Your task to perform on an android device: Search for the best rated mattress topper on Target. Image 0: 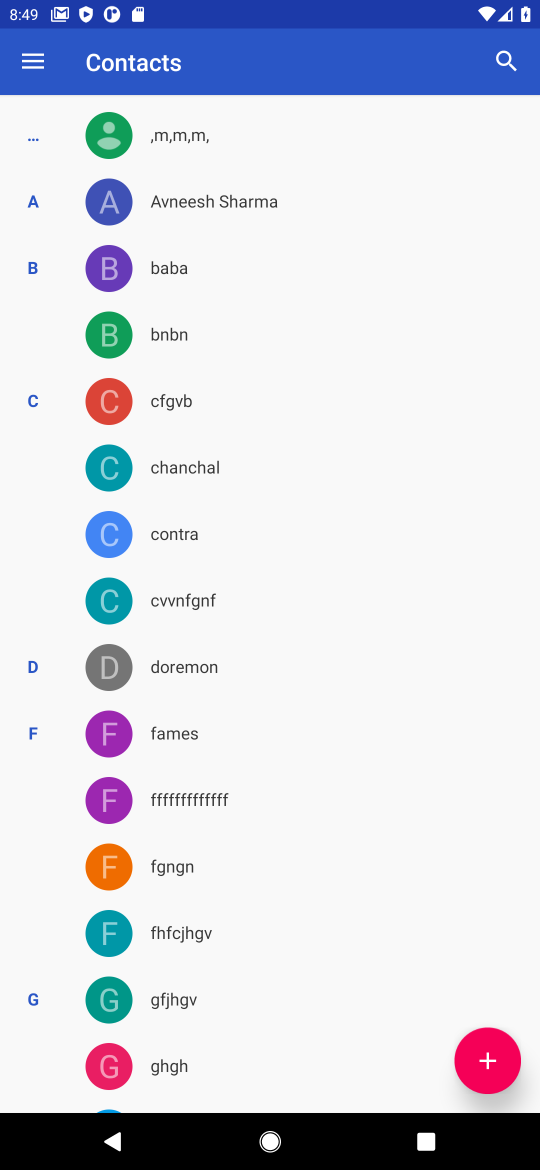
Step 0: press home button
Your task to perform on an android device: Search for the best rated mattress topper on Target. Image 1: 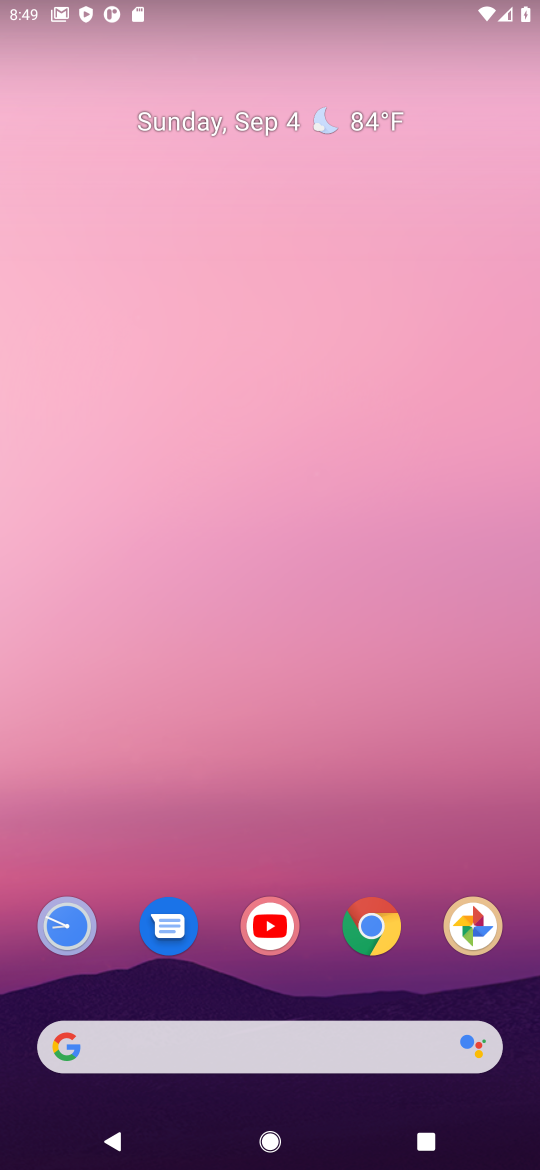
Step 1: click (237, 1030)
Your task to perform on an android device: Search for the best rated mattress topper on Target. Image 2: 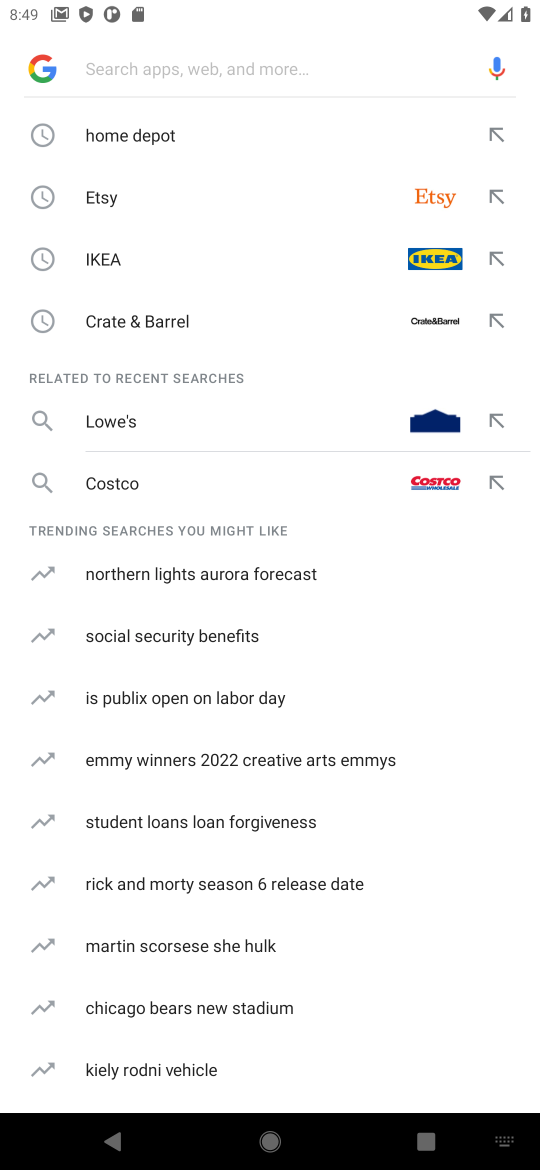
Step 2: type "target"
Your task to perform on an android device: Search for the best rated mattress topper on Target. Image 3: 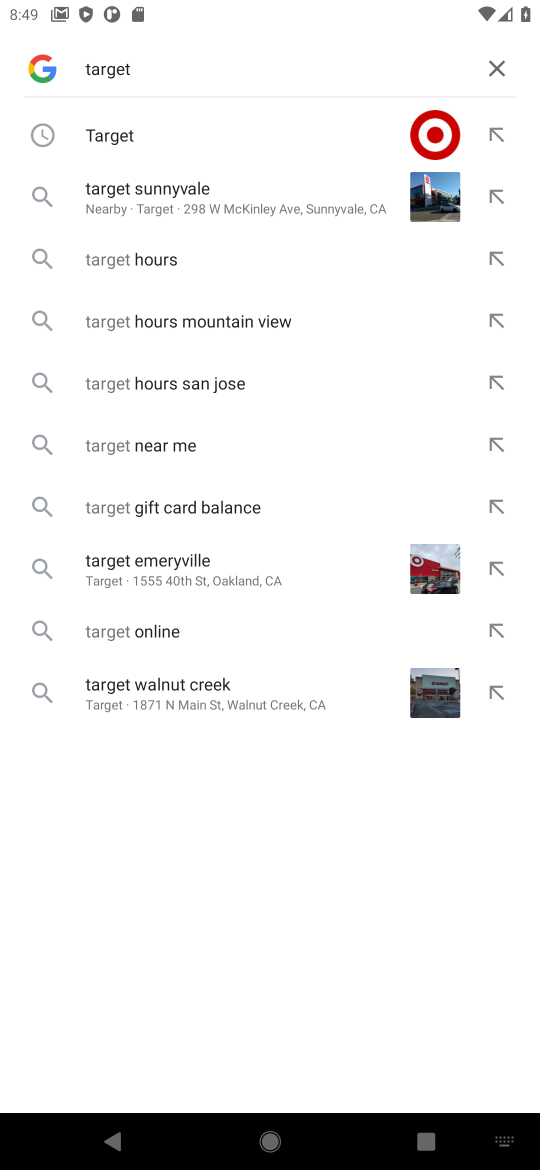
Step 3: click (130, 138)
Your task to perform on an android device: Search for the best rated mattress topper on Target. Image 4: 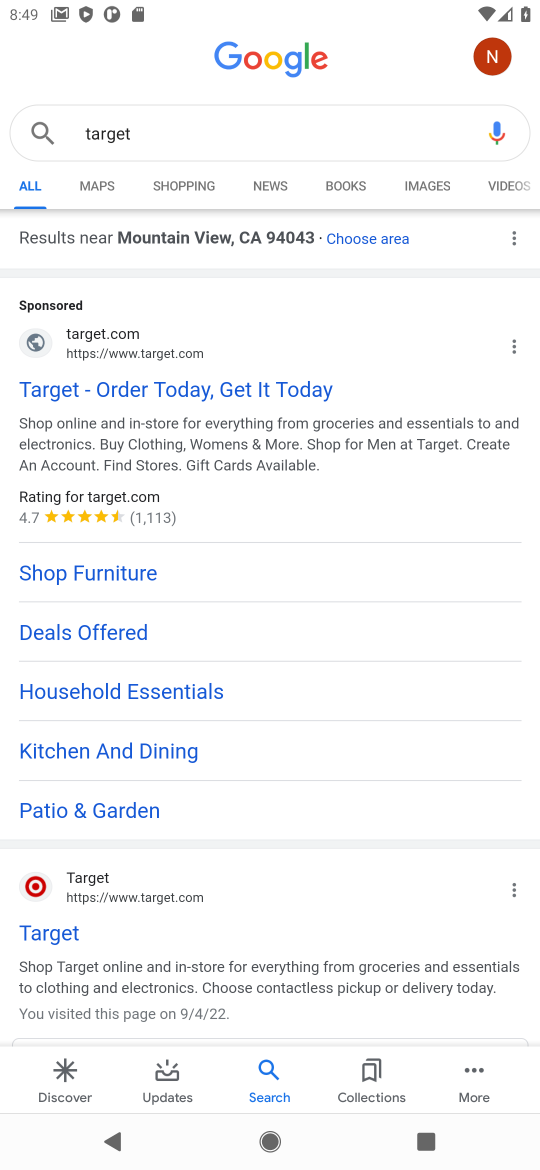
Step 4: click (51, 921)
Your task to perform on an android device: Search for the best rated mattress topper on Target. Image 5: 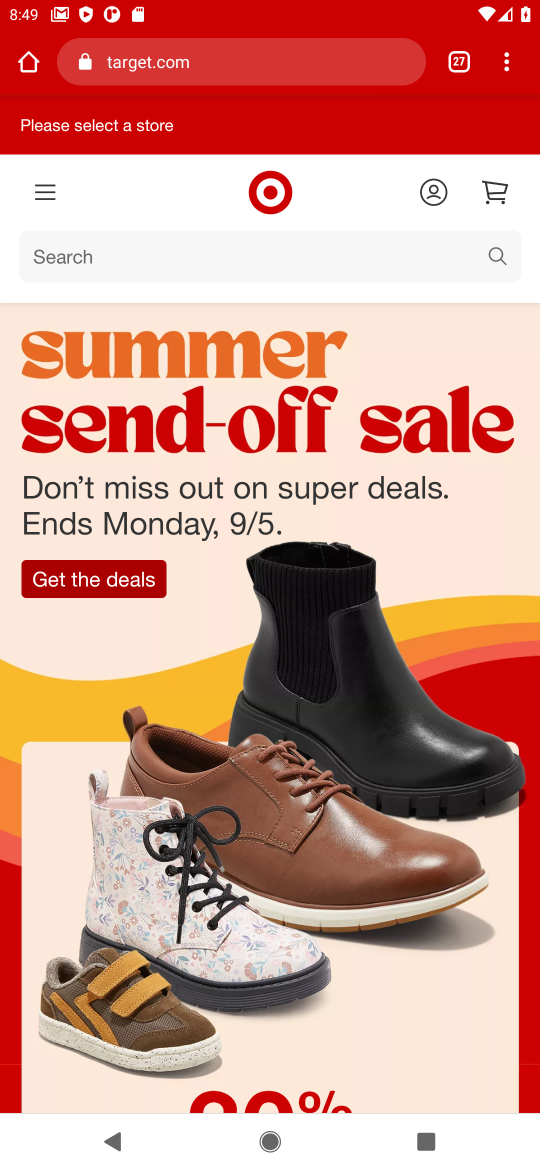
Step 5: click (217, 234)
Your task to perform on an android device: Search for the best rated mattress topper on Target. Image 6: 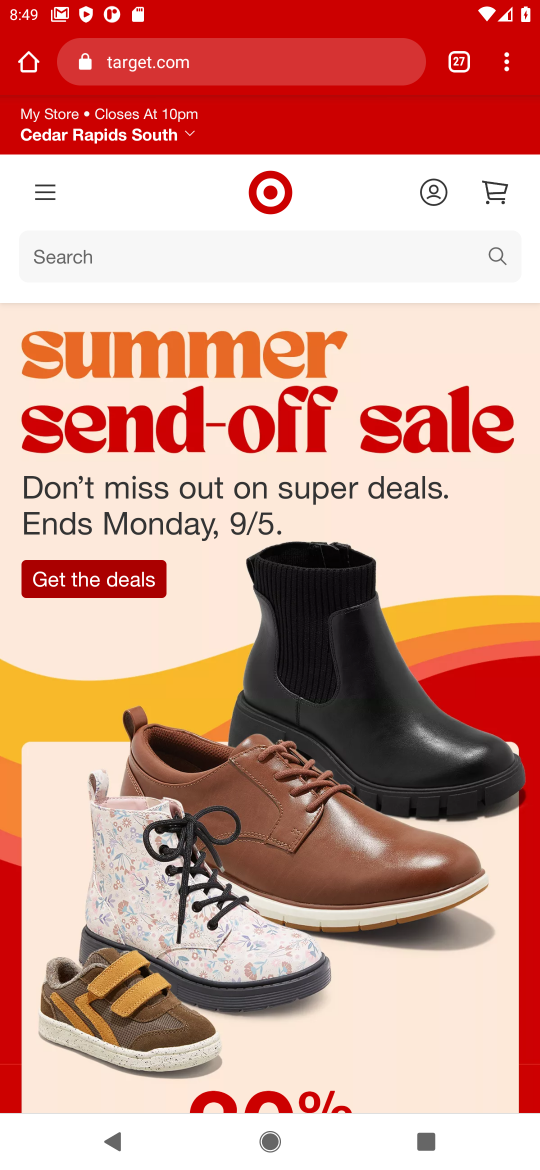
Step 6: click (72, 254)
Your task to perform on an android device: Search for the best rated mattress topper on Target. Image 7: 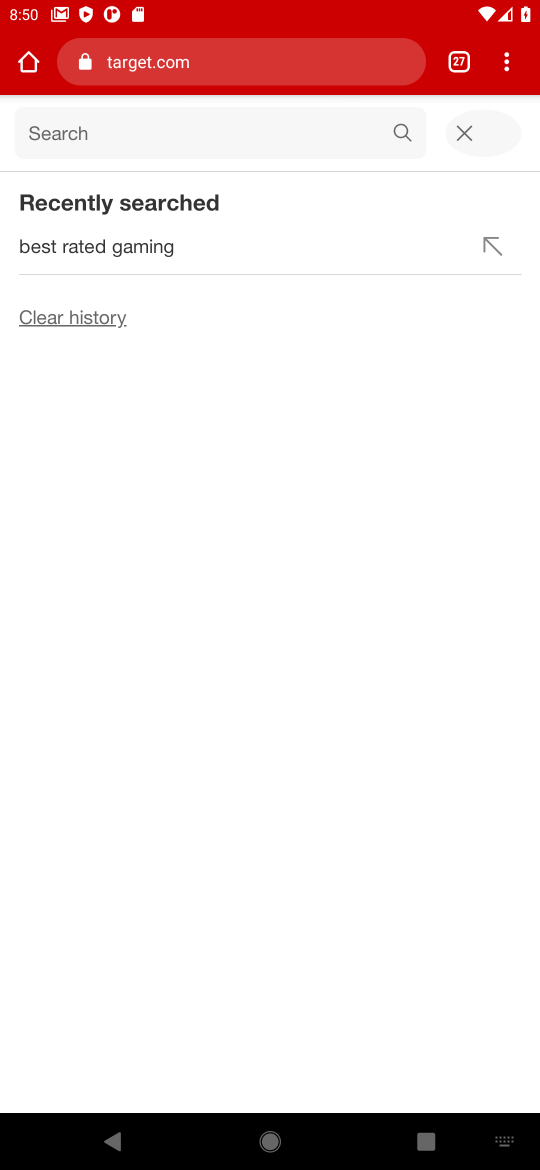
Step 7: type "best rated mattress topper"
Your task to perform on an android device: Search for the best rated mattress topper on Target. Image 8: 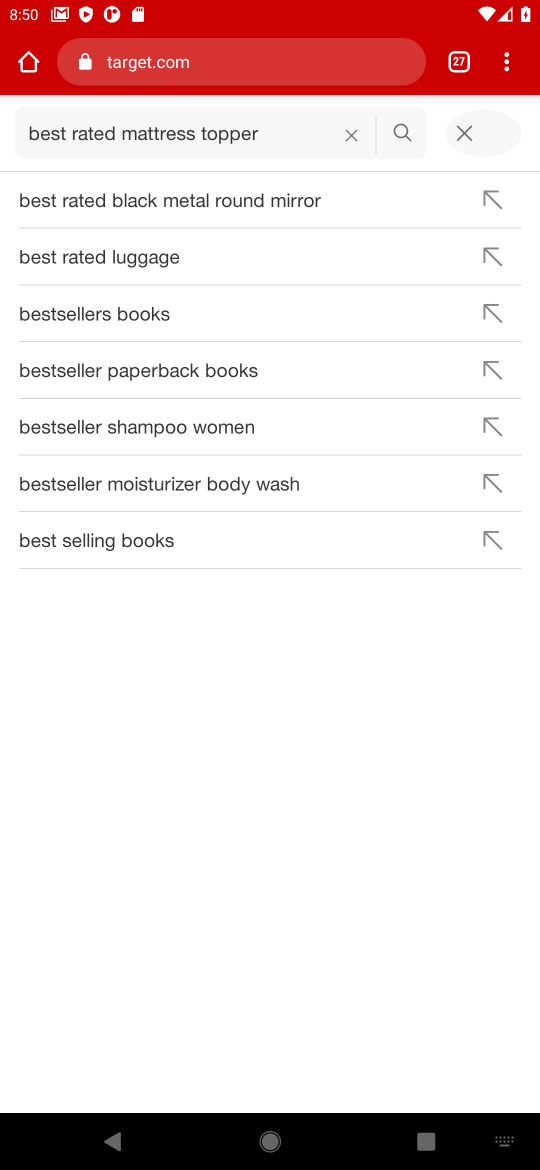
Step 8: click (400, 129)
Your task to perform on an android device: Search for the best rated mattress topper on Target. Image 9: 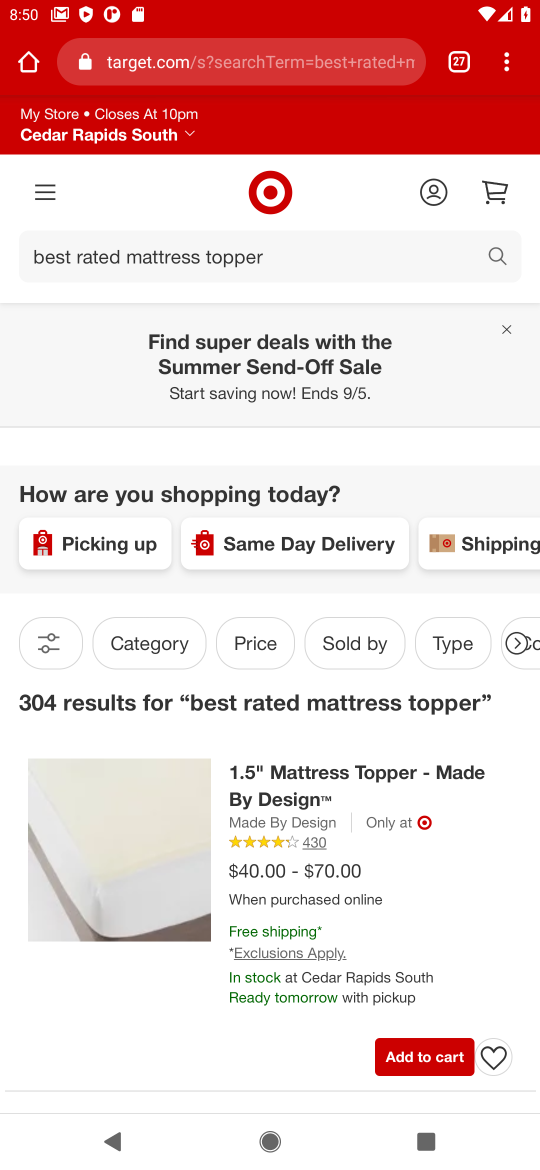
Step 9: task complete